Your task to perform on an android device: Open settings Image 0: 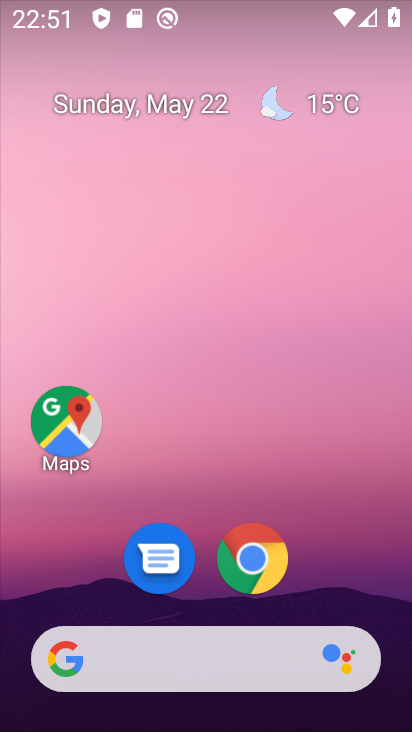
Step 0: drag from (338, 618) to (299, 7)
Your task to perform on an android device: Open settings Image 1: 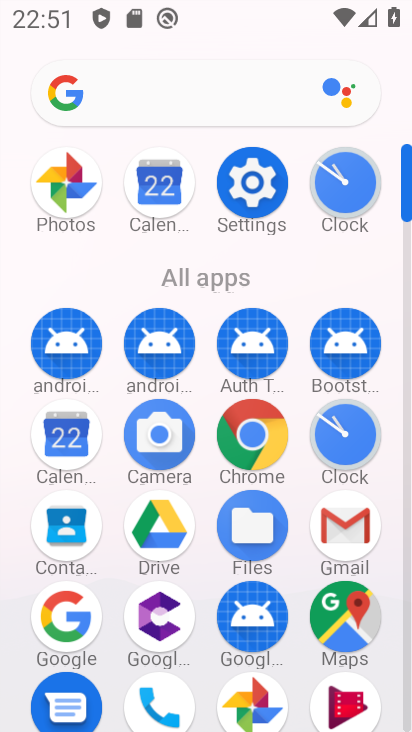
Step 1: click (260, 192)
Your task to perform on an android device: Open settings Image 2: 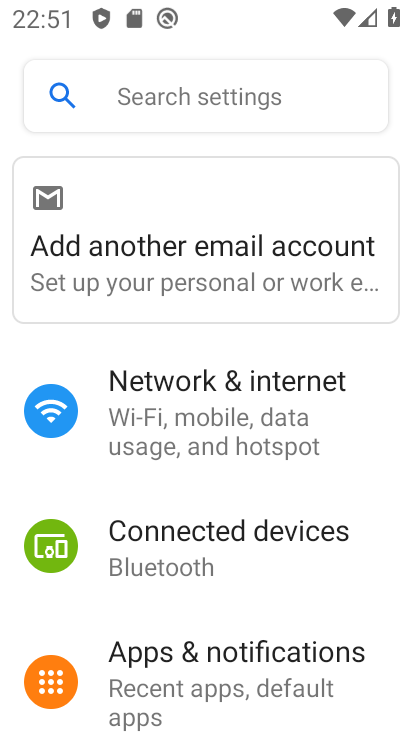
Step 2: task complete